Your task to perform on an android device: Is it going to rain this weekend? Image 0: 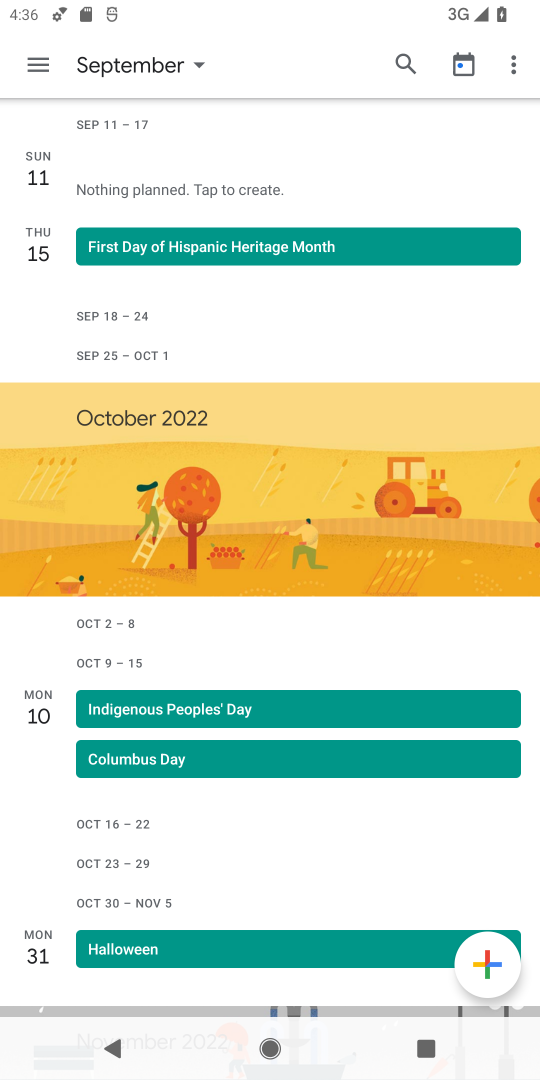
Step 0: press home button
Your task to perform on an android device: Is it going to rain this weekend? Image 1: 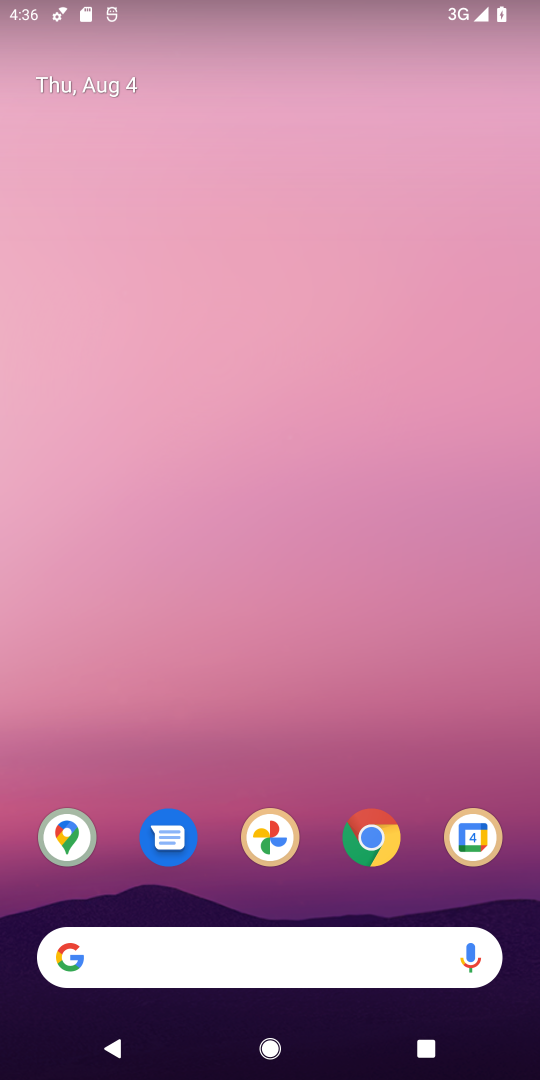
Step 1: click (260, 956)
Your task to perform on an android device: Is it going to rain this weekend? Image 2: 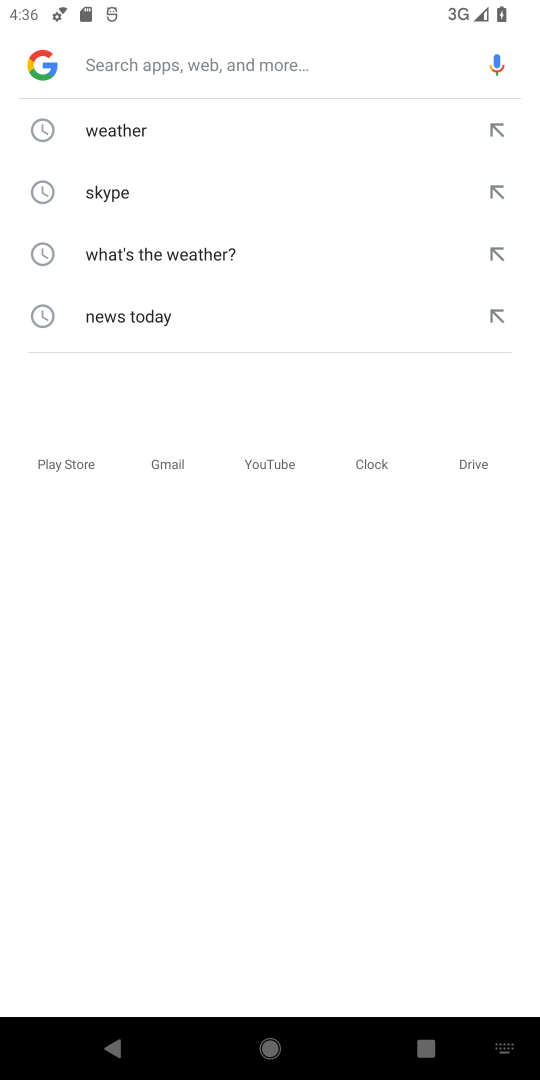
Step 2: type "is it going to rain this weekend"
Your task to perform on an android device: Is it going to rain this weekend? Image 3: 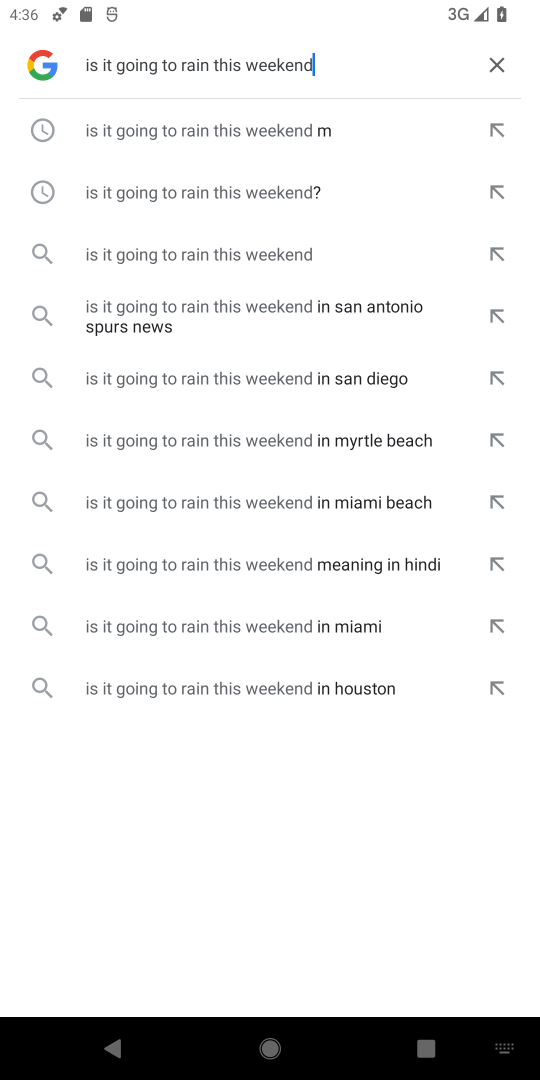
Step 3: click (259, 201)
Your task to perform on an android device: Is it going to rain this weekend? Image 4: 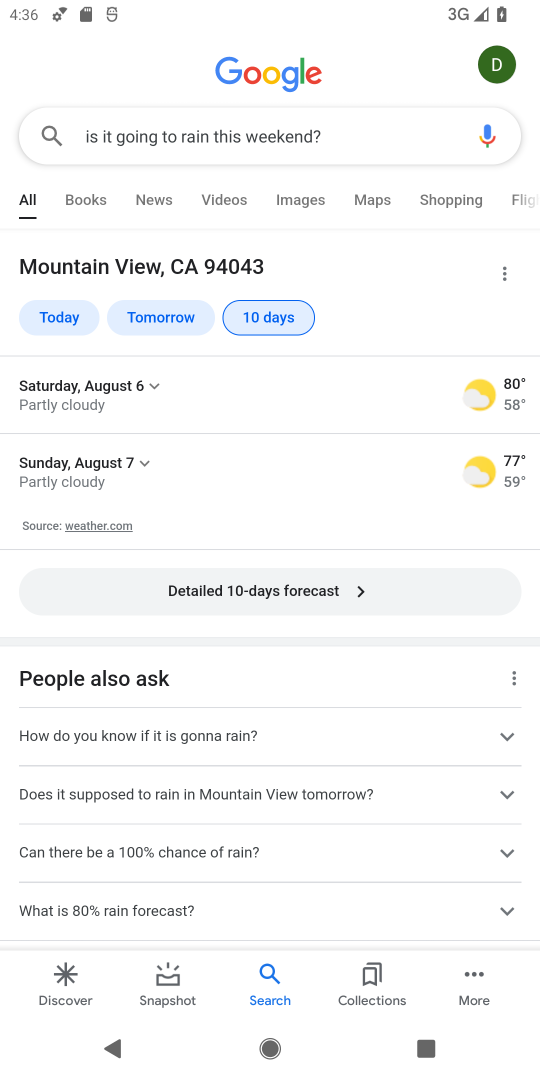
Step 4: task complete